Your task to perform on an android device: change the clock style Image 0: 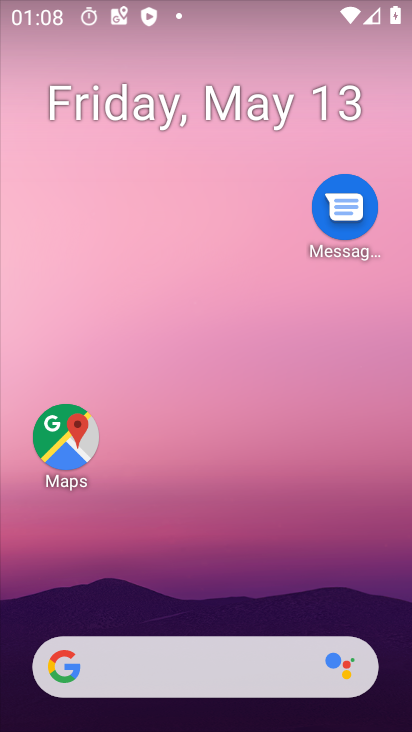
Step 0: drag from (172, 578) to (240, 139)
Your task to perform on an android device: change the clock style Image 1: 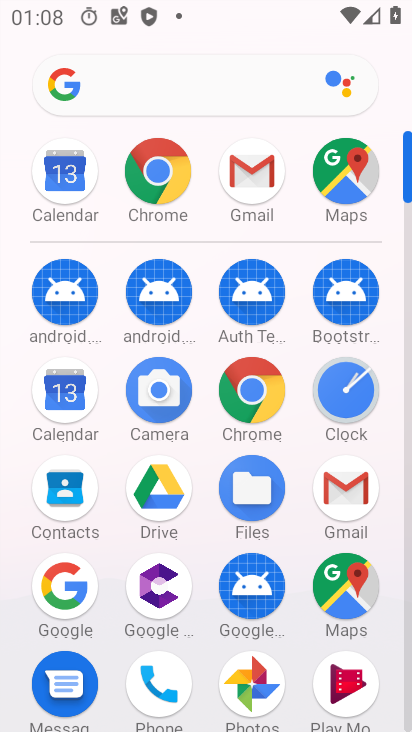
Step 1: click (341, 385)
Your task to perform on an android device: change the clock style Image 2: 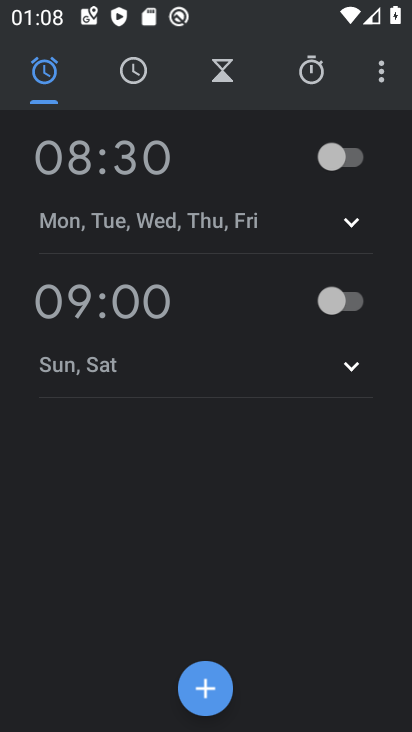
Step 2: click (389, 71)
Your task to perform on an android device: change the clock style Image 3: 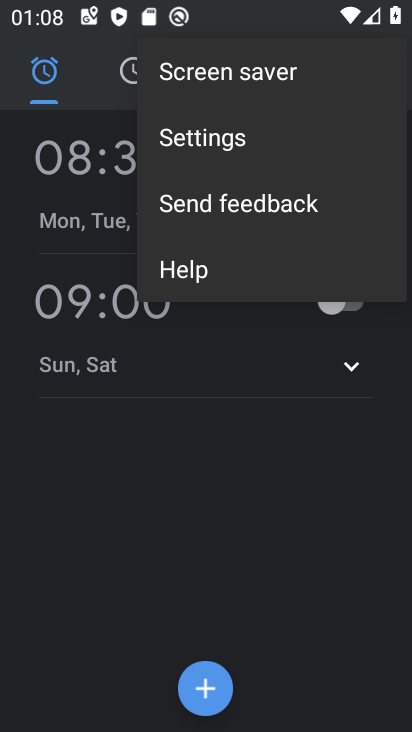
Step 3: click (214, 146)
Your task to perform on an android device: change the clock style Image 4: 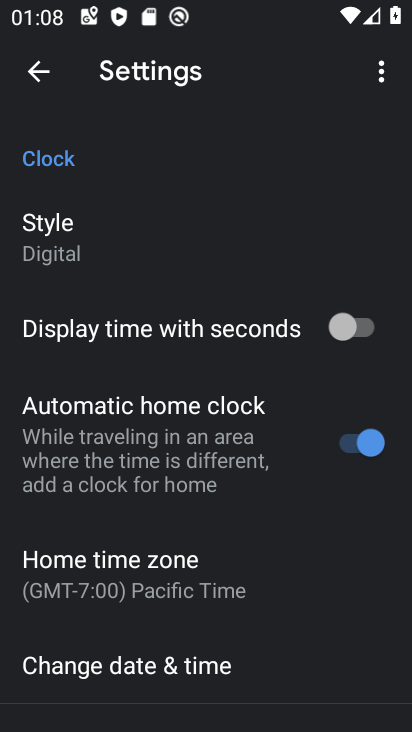
Step 4: click (29, 219)
Your task to perform on an android device: change the clock style Image 5: 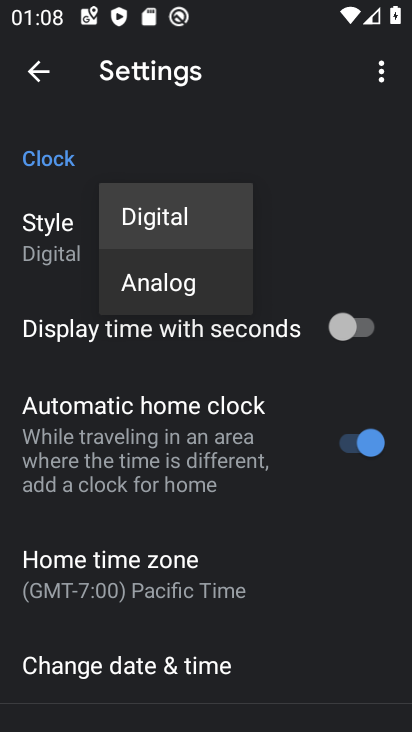
Step 5: click (175, 277)
Your task to perform on an android device: change the clock style Image 6: 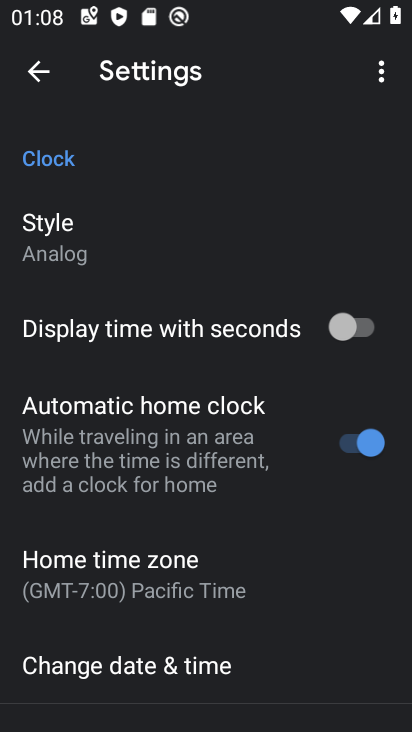
Step 6: task complete